Your task to perform on an android device: empty trash in google photos Image 0: 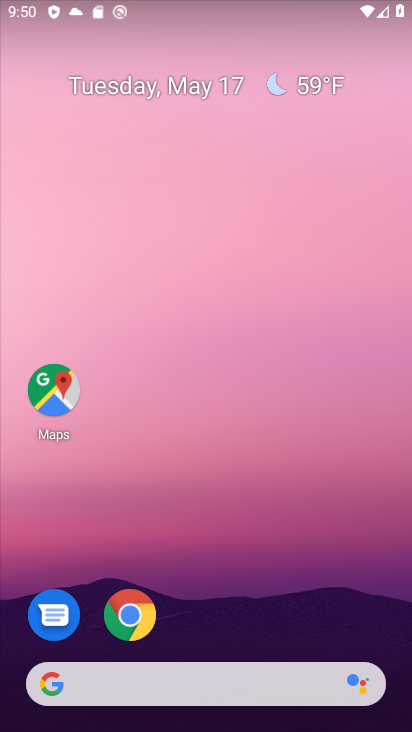
Step 0: drag from (211, 627) to (243, 213)
Your task to perform on an android device: empty trash in google photos Image 1: 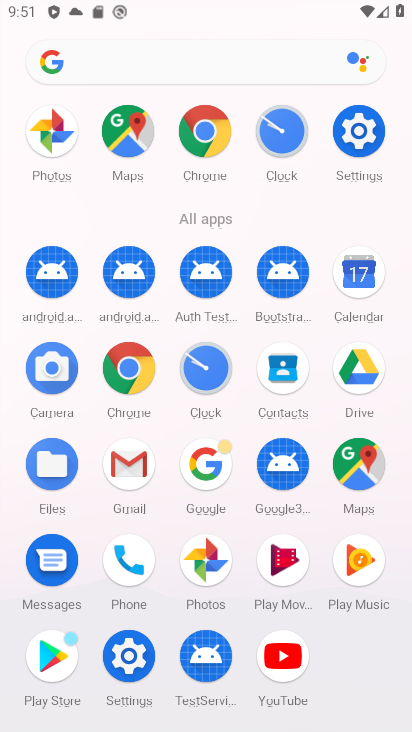
Step 1: click (212, 578)
Your task to perform on an android device: empty trash in google photos Image 2: 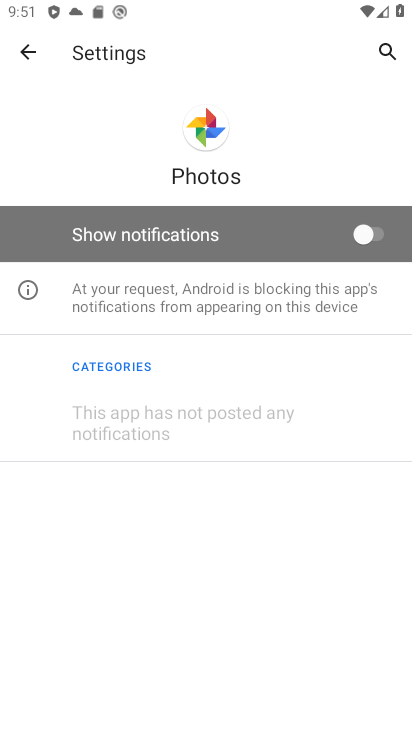
Step 2: click (28, 59)
Your task to perform on an android device: empty trash in google photos Image 3: 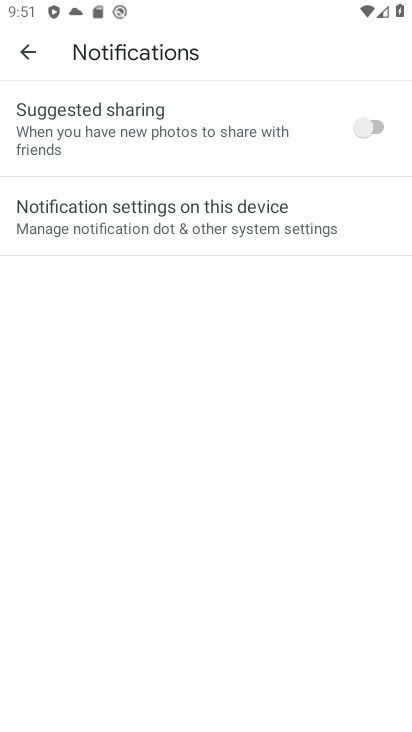
Step 3: click (28, 59)
Your task to perform on an android device: empty trash in google photos Image 4: 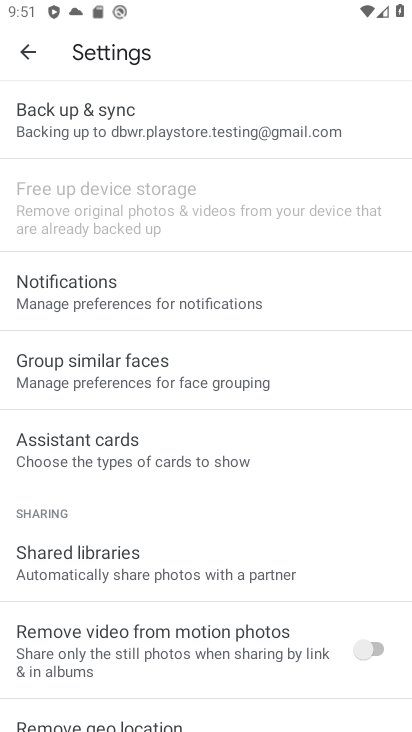
Step 4: click (28, 59)
Your task to perform on an android device: empty trash in google photos Image 5: 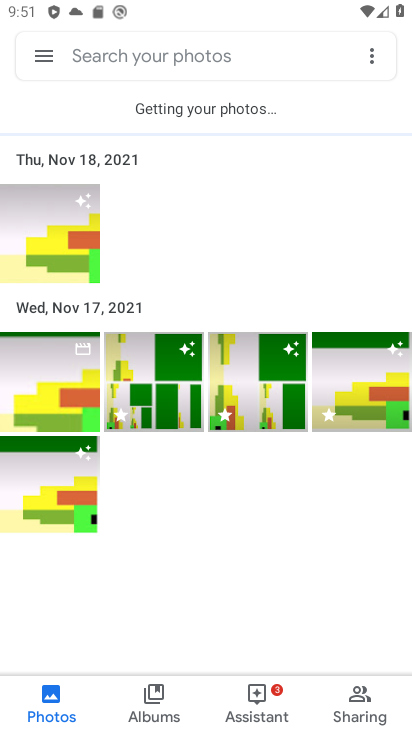
Step 5: click (37, 54)
Your task to perform on an android device: empty trash in google photos Image 6: 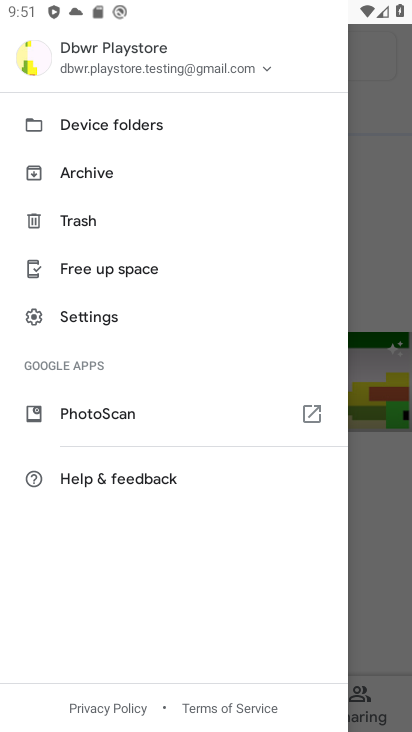
Step 6: click (97, 222)
Your task to perform on an android device: empty trash in google photos Image 7: 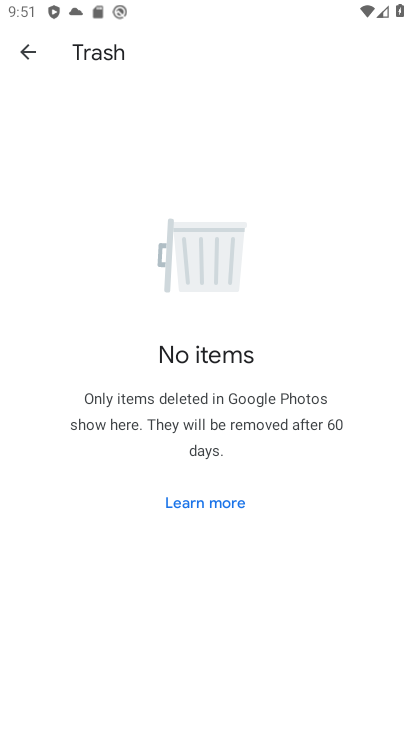
Step 7: task complete